Your task to perform on an android device: toggle pop-ups in chrome Image 0: 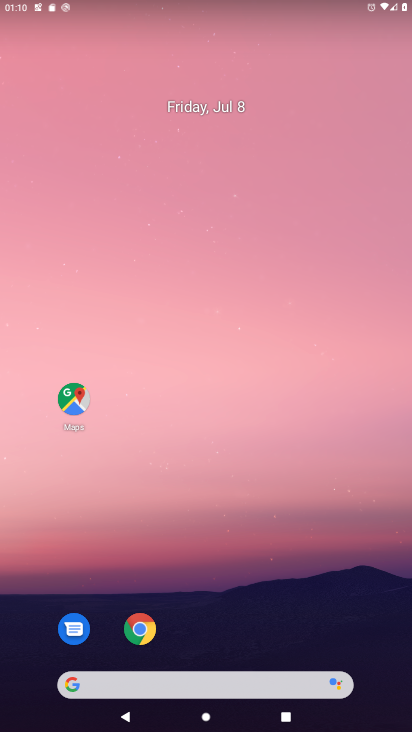
Step 0: click (141, 625)
Your task to perform on an android device: toggle pop-ups in chrome Image 1: 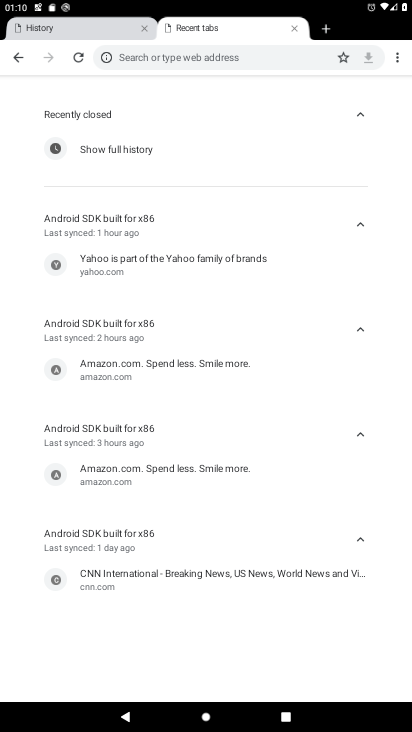
Step 1: click (397, 58)
Your task to perform on an android device: toggle pop-ups in chrome Image 2: 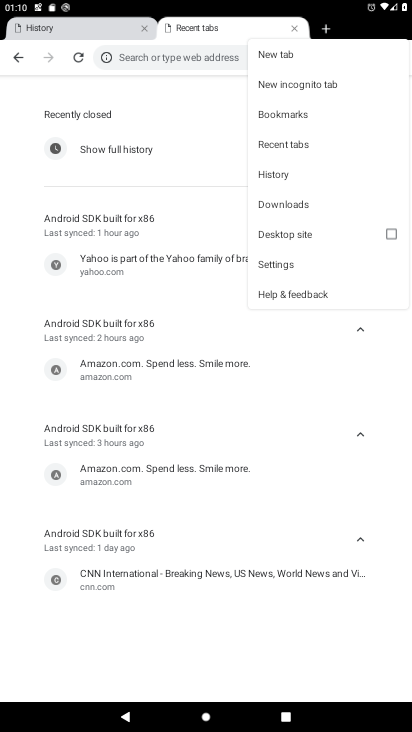
Step 2: click (275, 270)
Your task to perform on an android device: toggle pop-ups in chrome Image 3: 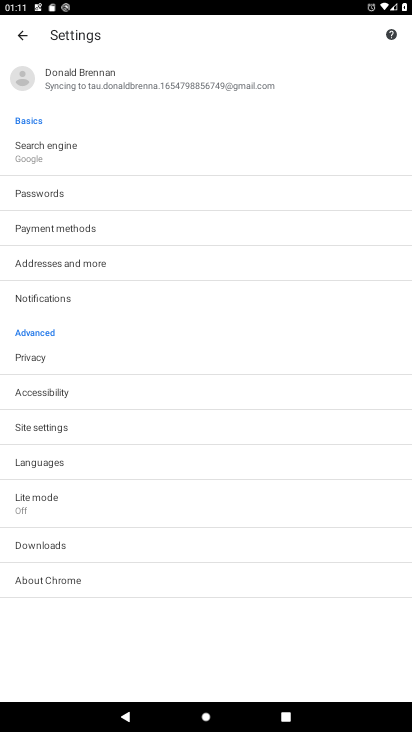
Step 3: click (39, 427)
Your task to perform on an android device: toggle pop-ups in chrome Image 4: 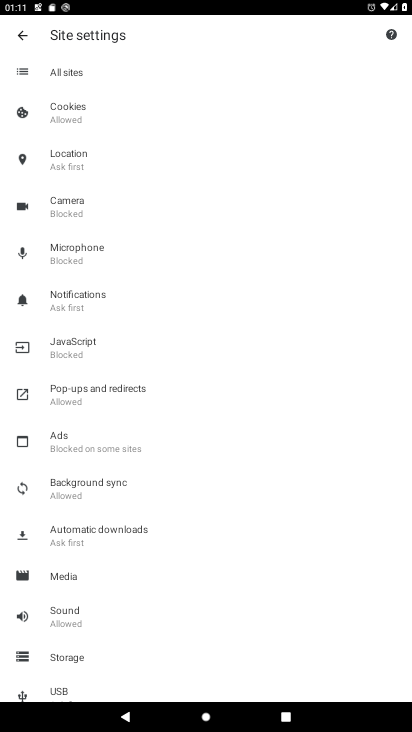
Step 4: click (78, 391)
Your task to perform on an android device: toggle pop-ups in chrome Image 5: 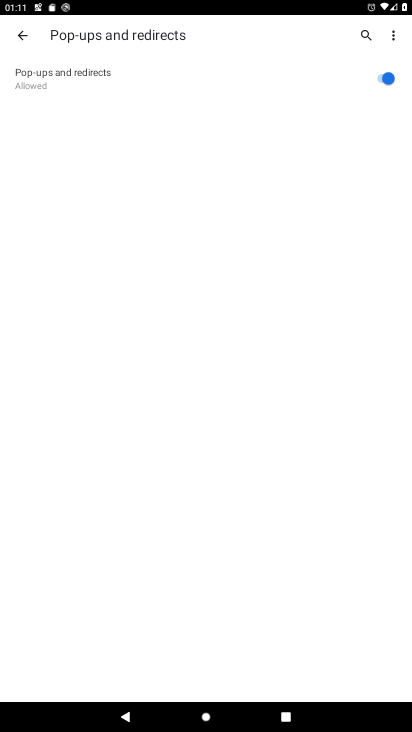
Step 5: click (385, 75)
Your task to perform on an android device: toggle pop-ups in chrome Image 6: 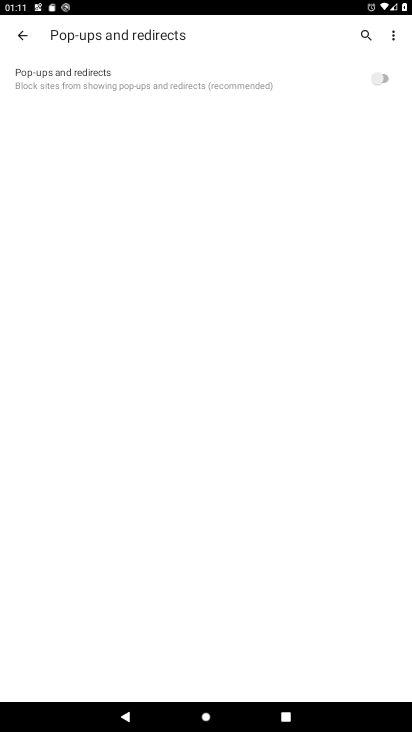
Step 6: task complete